Your task to perform on an android device: open wifi settings Image 0: 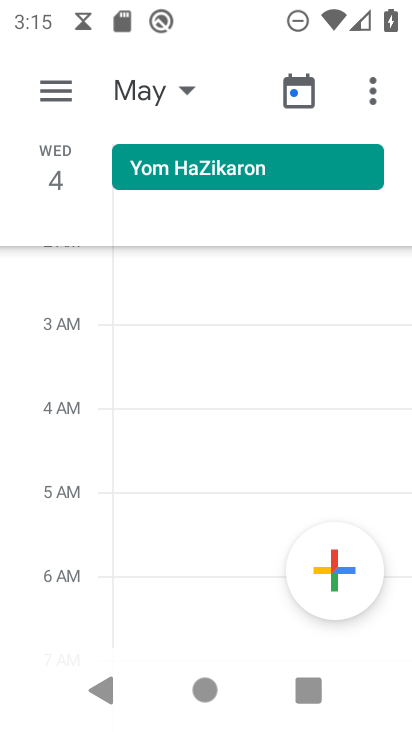
Step 0: click (399, 555)
Your task to perform on an android device: open wifi settings Image 1: 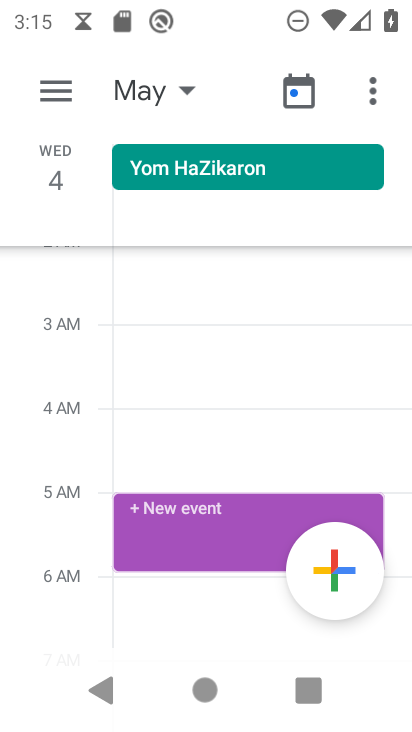
Step 1: press home button
Your task to perform on an android device: open wifi settings Image 2: 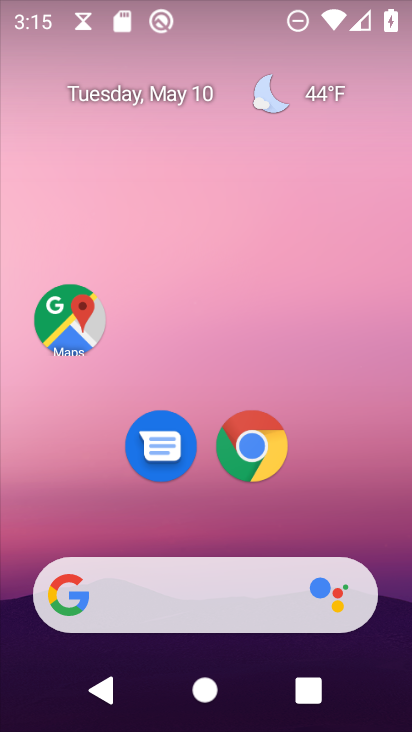
Step 2: drag from (377, 474) to (360, 93)
Your task to perform on an android device: open wifi settings Image 3: 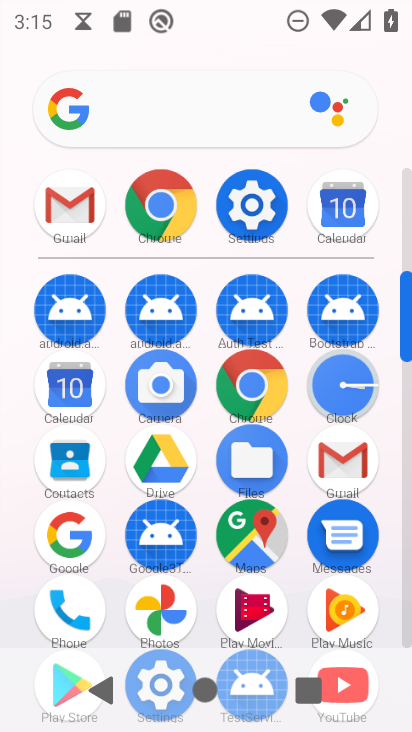
Step 3: click (257, 208)
Your task to perform on an android device: open wifi settings Image 4: 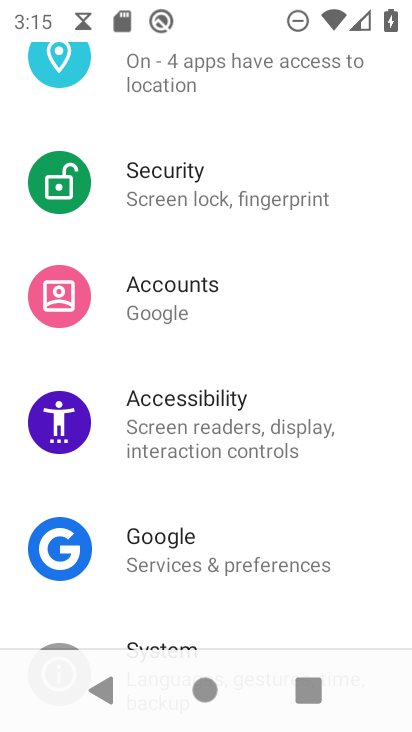
Step 4: drag from (269, 214) to (108, 559)
Your task to perform on an android device: open wifi settings Image 5: 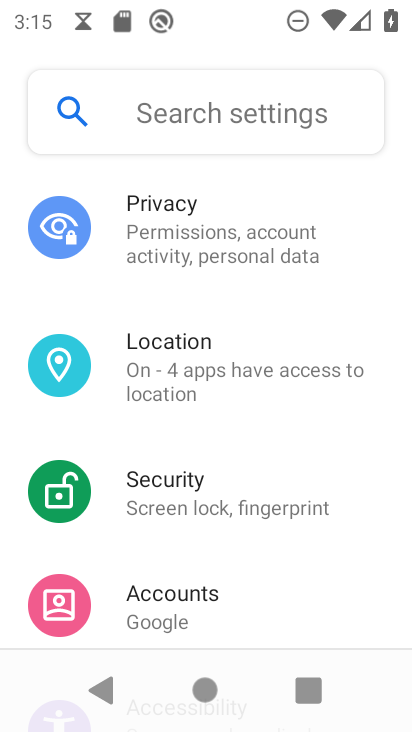
Step 5: drag from (260, 343) to (281, 550)
Your task to perform on an android device: open wifi settings Image 6: 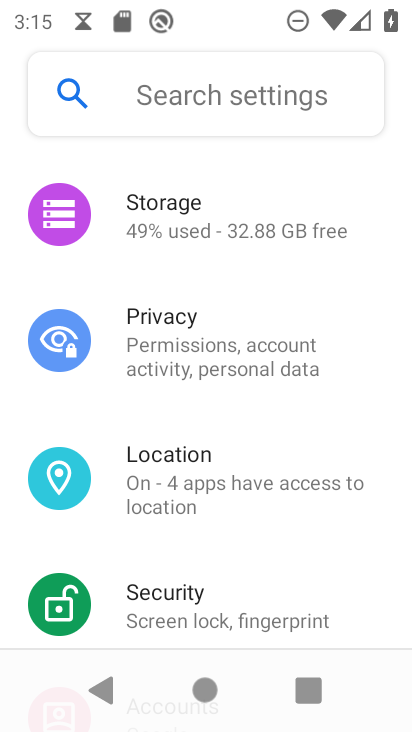
Step 6: drag from (247, 219) to (251, 504)
Your task to perform on an android device: open wifi settings Image 7: 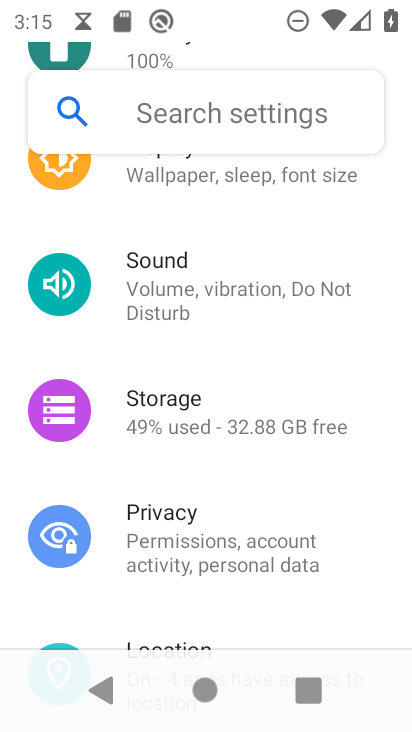
Step 7: drag from (309, 209) to (336, 594)
Your task to perform on an android device: open wifi settings Image 8: 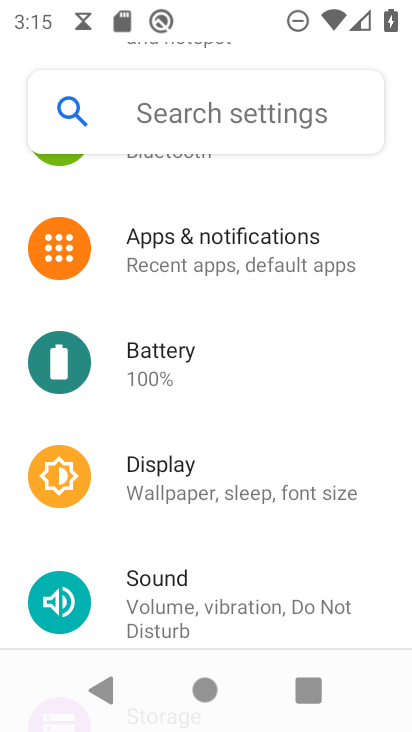
Step 8: drag from (330, 250) to (307, 591)
Your task to perform on an android device: open wifi settings Image 9: 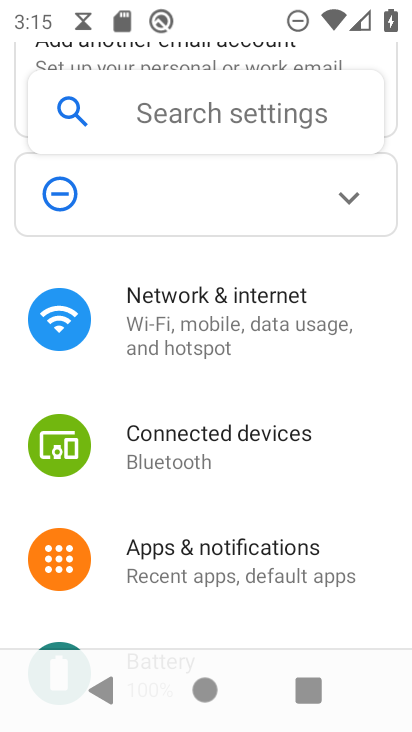
Step 9: drag from (311, 279) to (305, 583)
Your task to perform on an android device: open wifi settings Image 10: 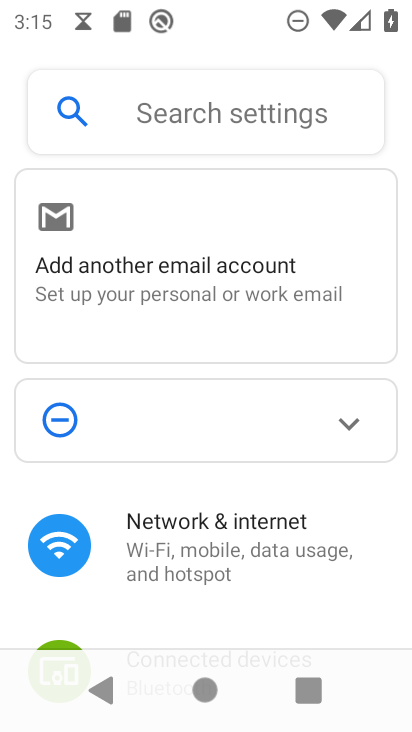
Step 10: click (189, 530)
Your task to perform on an android device: open wifi settings Image 11: 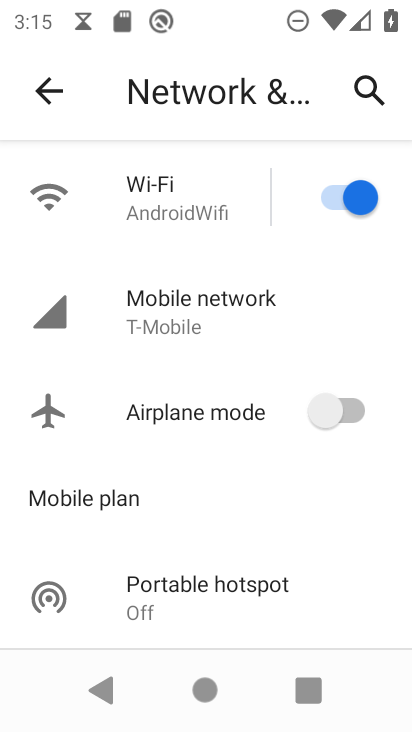
Step 11: click (187, 203)
Your task to perform on an android device: open wifi settings Image 12: 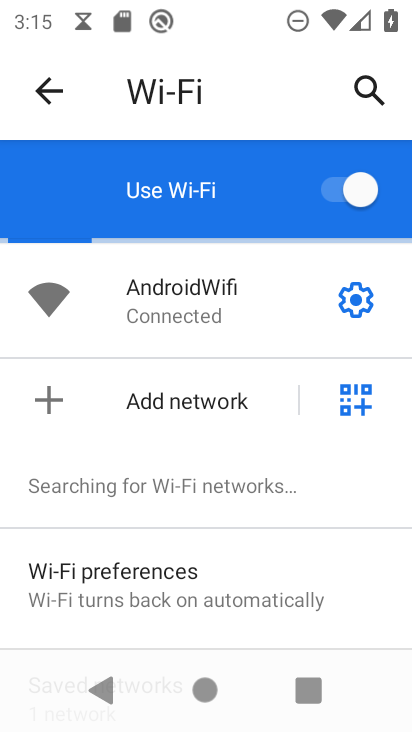
Step 12: task complete